Your task to perform on an android device: Show me recent news Image 0: 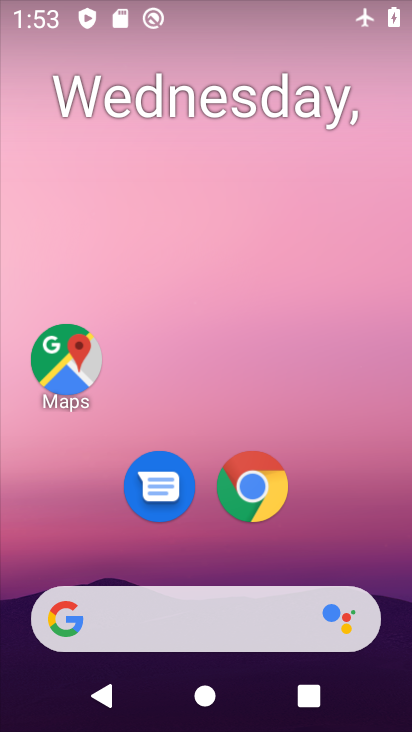
Step 0: drag from (139, 698) to (180, 40)
Your task to perform on an android device: Show me recent news Image 1: 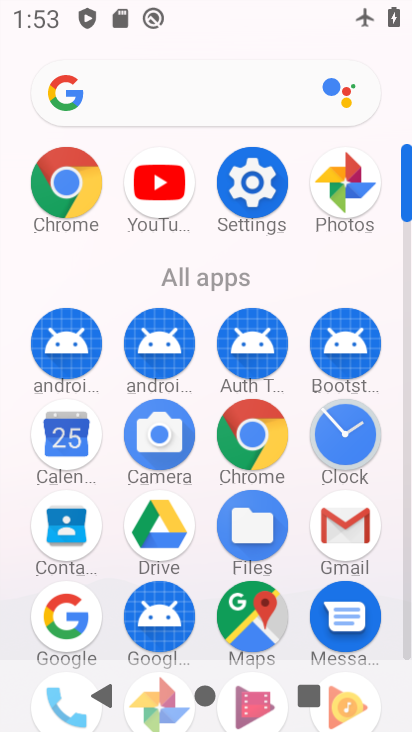
Step 1: click (264, 87)
Your task to perform on an android device: Show me recent news Image 2: 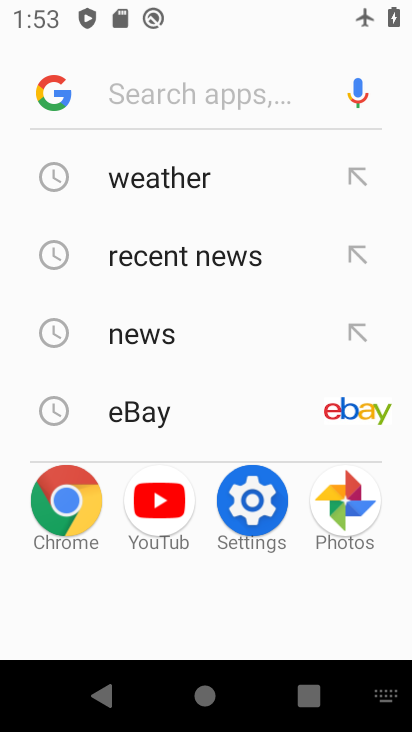
Step 2: click (185, 244)
Your task to perform on an android device: Show me recent news Image 3: 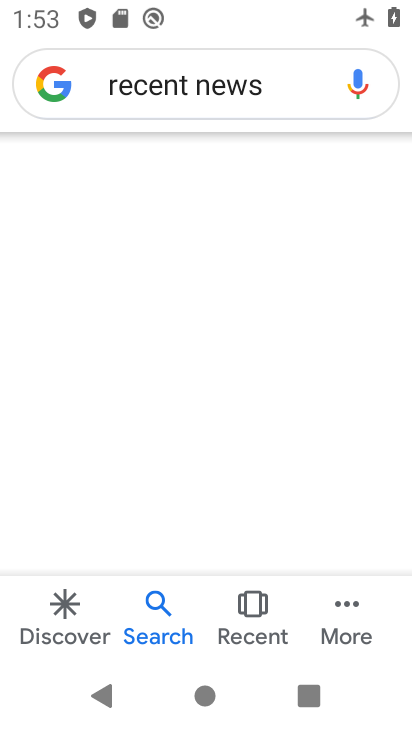
Step 3: task complete